Your task to perform on an android device: Go to Amazon Image 0: 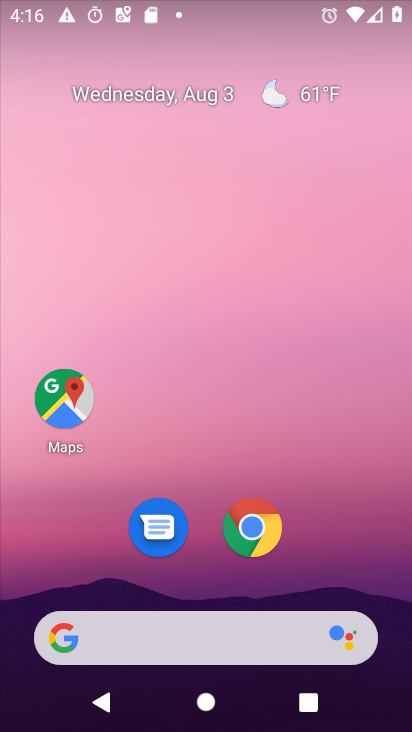
Step 0: drag from (342, 543) to (353, 141)
Your task to perform on an android device: Go to Amazon Image 1: 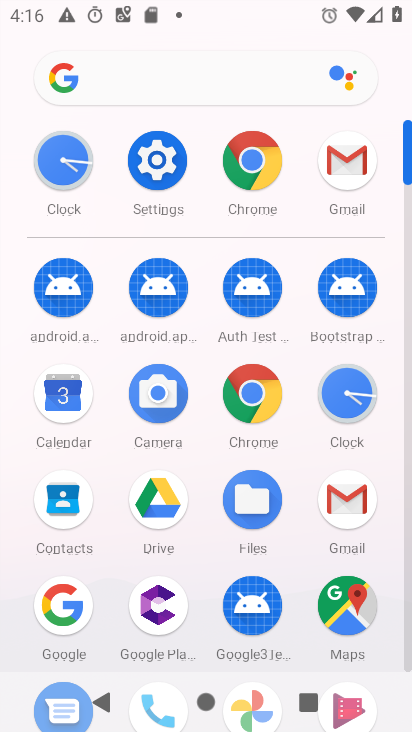
Step 1: click (248, 393)
Your task to perform on an android device: Go to Amazon Image 2: 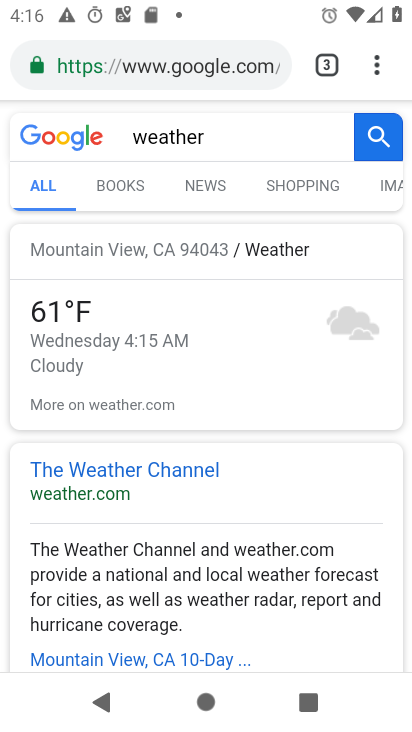
Step 2: click (210, 64)
Your task to perform on an android device: Go to Amazon Image 3: 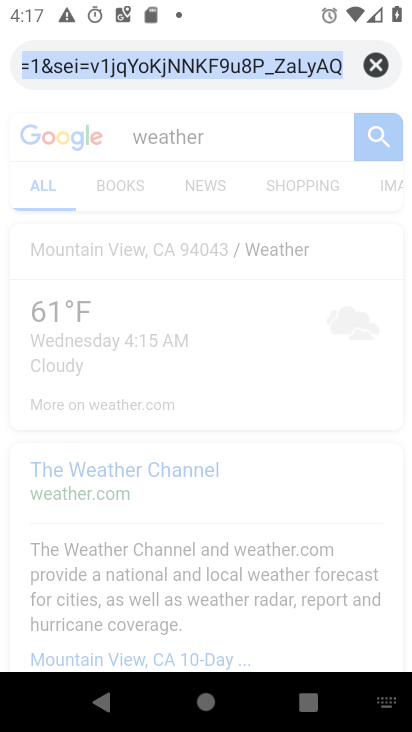
Step 3: click (374, 63)
Your task to perform on an android device: Go to Amazon Image 4: 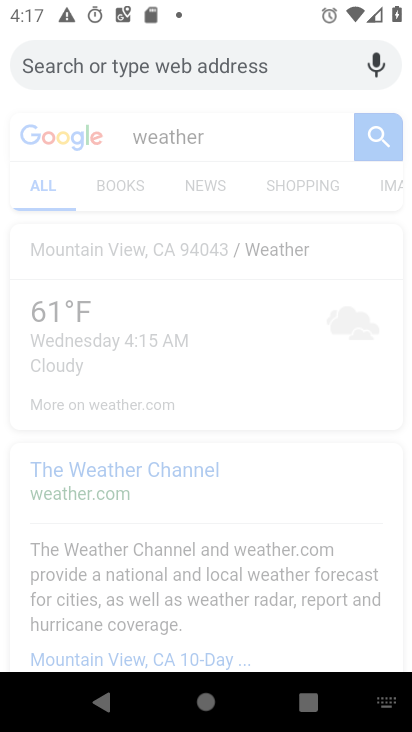
Step 4: type "amazon"
Your task to perform on an android device: Go to Amazon Image 5: 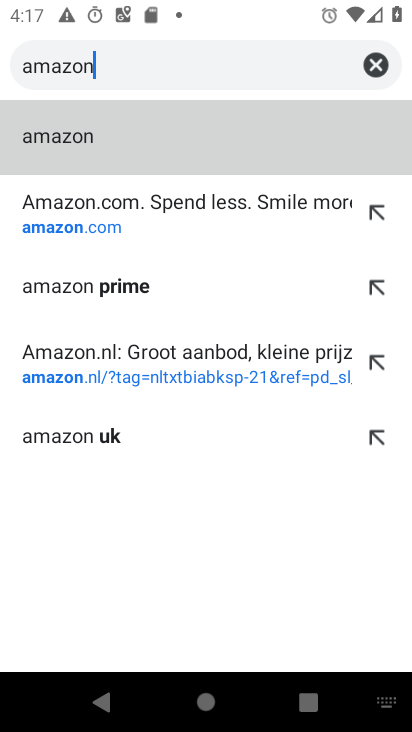
Step 5: click (66, 220)
Your task to perform on an android device: Go to Amazon Image 6: 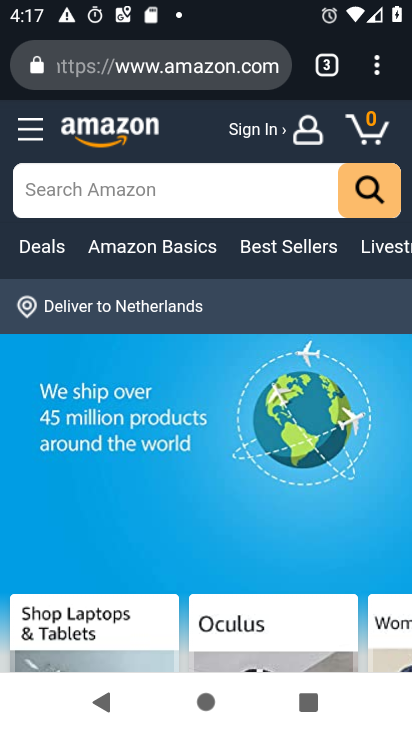
Step 6: task complete